Your task to perform on an android device: Open sound settings Image 0: 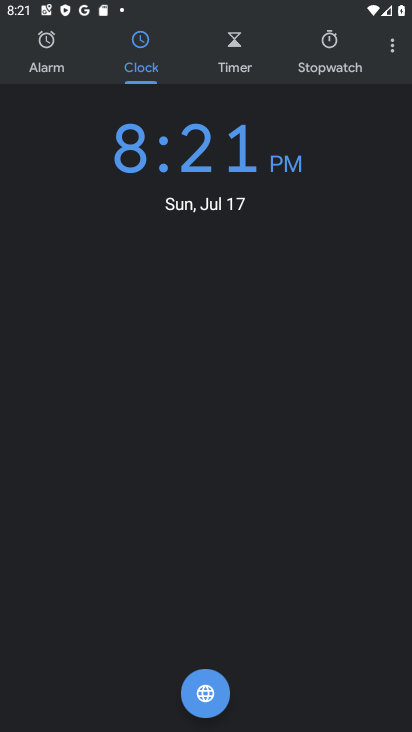
Step 0: press home button
Your task to perform on an android device: Open sound settings Image 1: 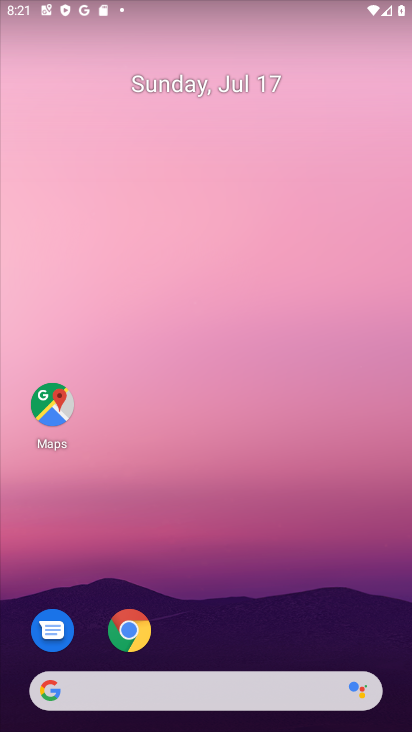
Step 1: drag from (171, 504) to (221, 8)
Your task to perform on an android device: Open sound settings Image 2: 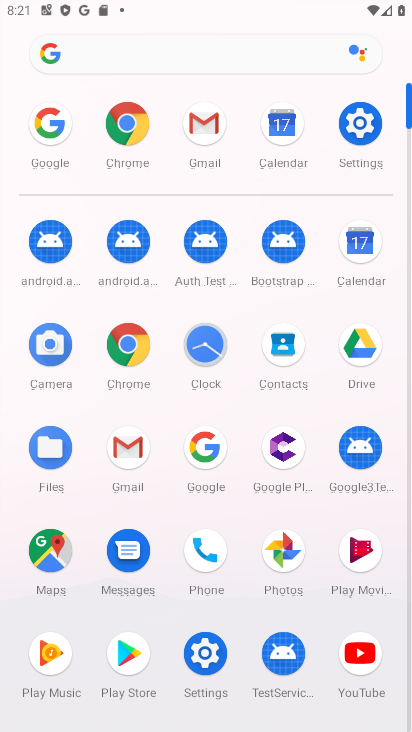
Step 2: click (357, 119)
Your task to perform on an android device: Open sound settings Image 3: 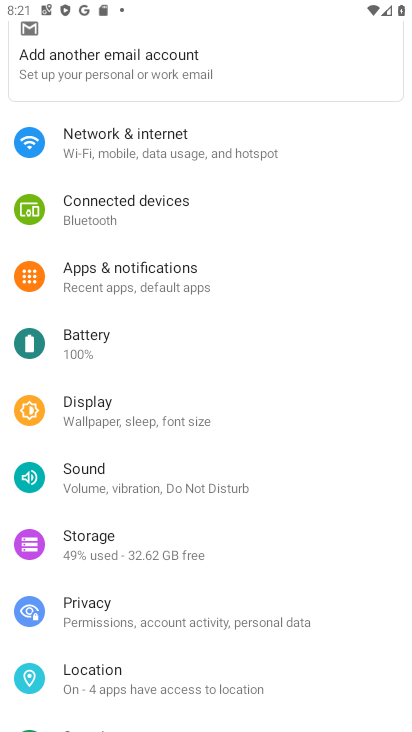
Step 3: click (105, 476)
Your task to perform on an android device: Open sound settings Image 4: 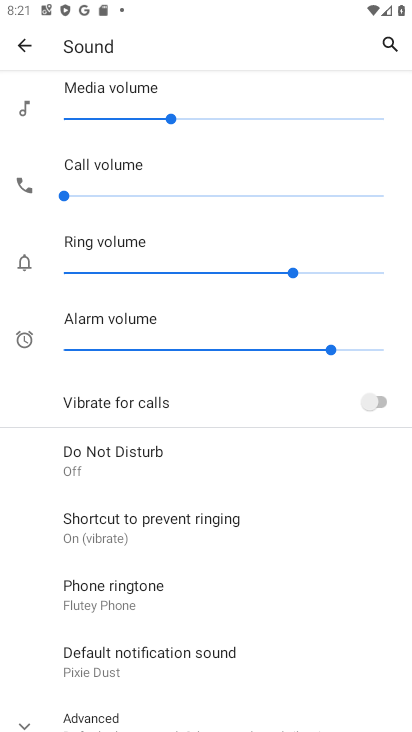
Step 4: task complete